Your task to perform on an android device: Open Youtube and go to "Your channel" Image 0: 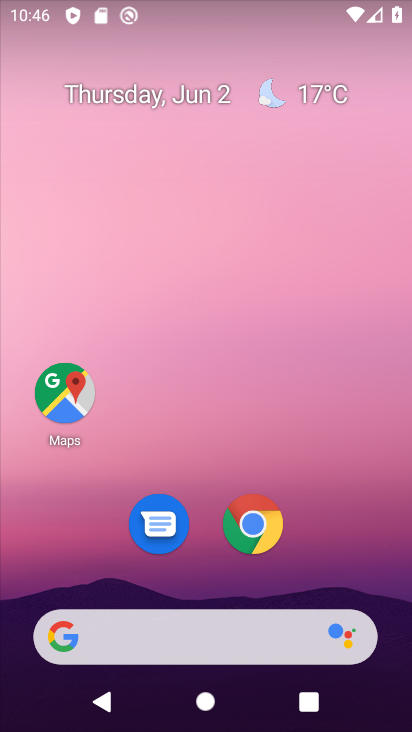
Step 0: drag from (227, 458) to (240, 6)
Your task to perform on an android device: Open Youtube and go to "Your channel" Image 1: 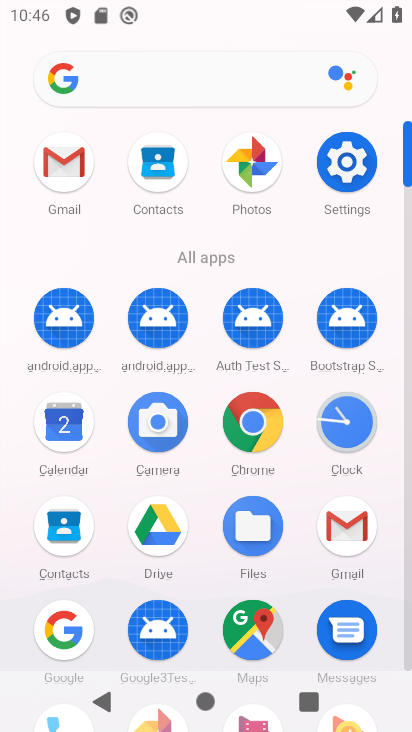
Step 1: drag from (211, 508) to (189, 57)
Your task to perform on an android device: Open Youtube and go to "Your channel" Image 2: 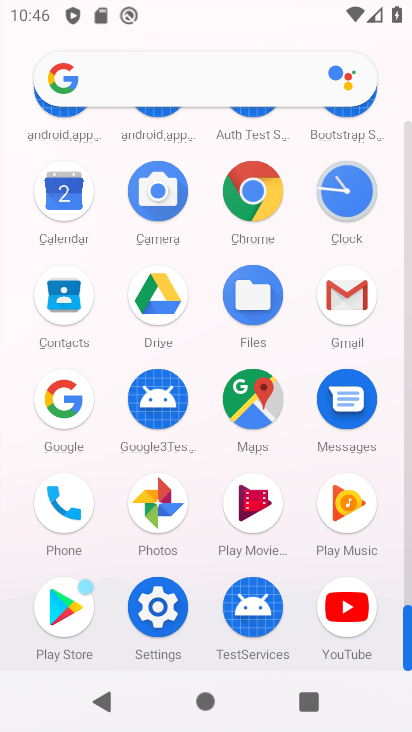
Step 2: click (357, 617)
Your task to perform on an android device: Open Youtube and go to "Your channel" Image 3: 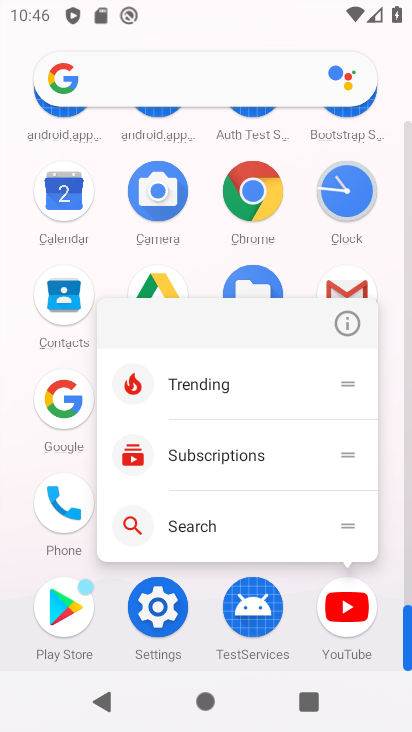
Step 3: click (357, 615)
Your task to perform on an android device: Open Youtube and go to "Your channel" Image 4: 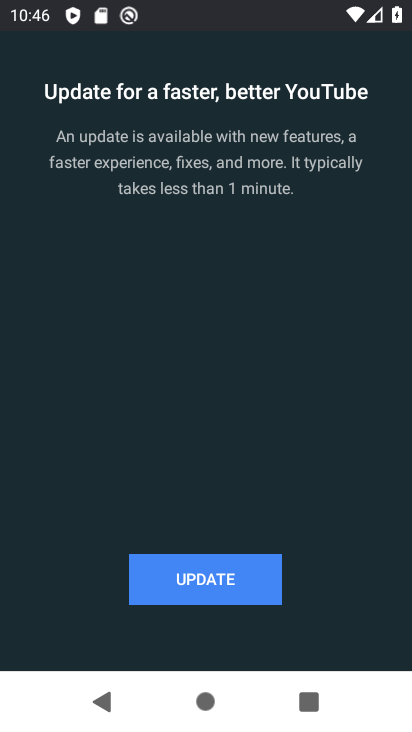
Step 4: click (250, 584)
Your task to perform on an android device: Open Youtube and go to "Your channel" Image 5: 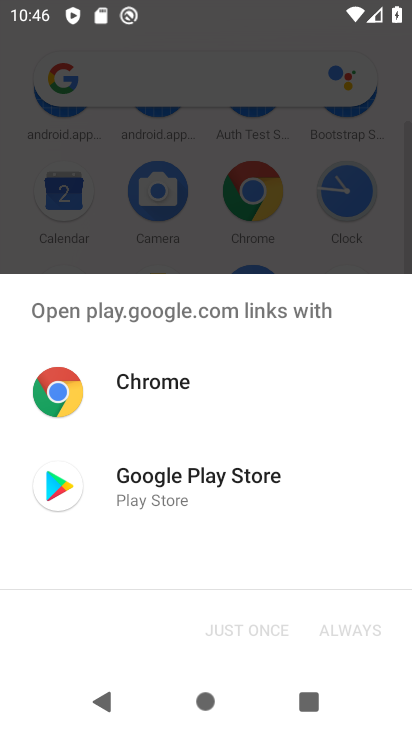
Step 5: click (164, 467)
Your task to perform on an android device: Open Youtube and go to "Your channel" Image 6: 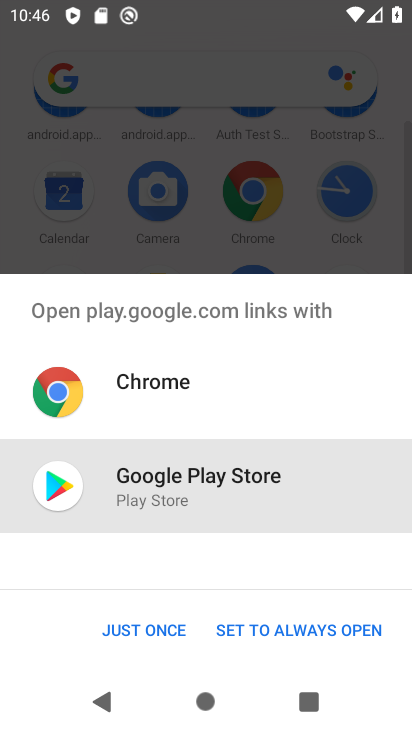
Step 6: click (162, 629)
Your task to perform on an android device: Open Youtube and go to "Your channel" Image 7: 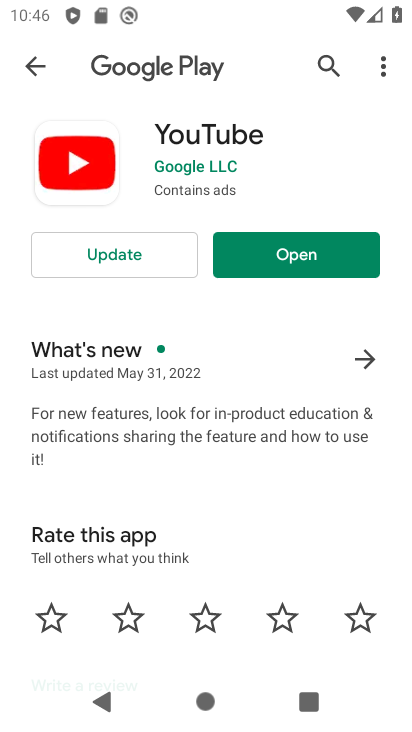
Step 7: click (148, 264)
Your task to perform on an android device: Open Youtube and go to "Your channel" Image 8: 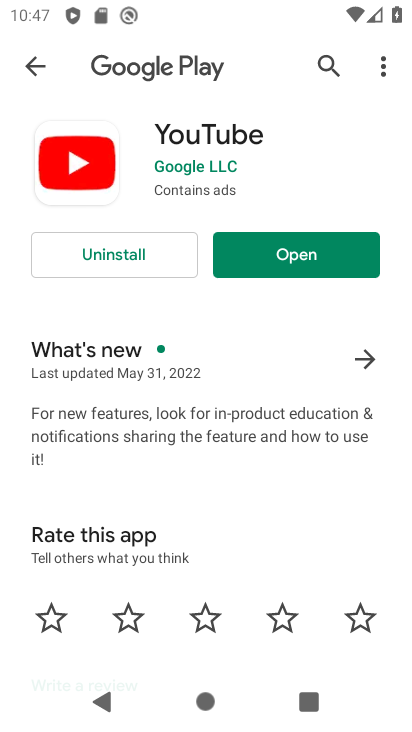
Step 8: click (352, 258)
Your task to perform on an android device: Open Youtube and go to "Your channel" Image 9: 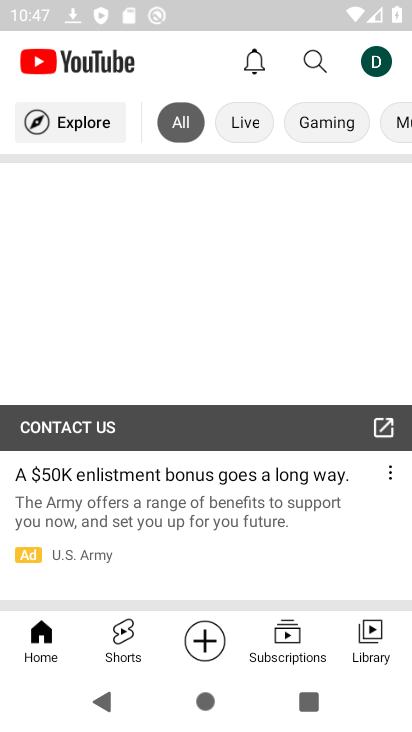
Step 9: click (375, 61)
Your task to perform on an android device: Open Youtube and go to "Your channel" Image 10: 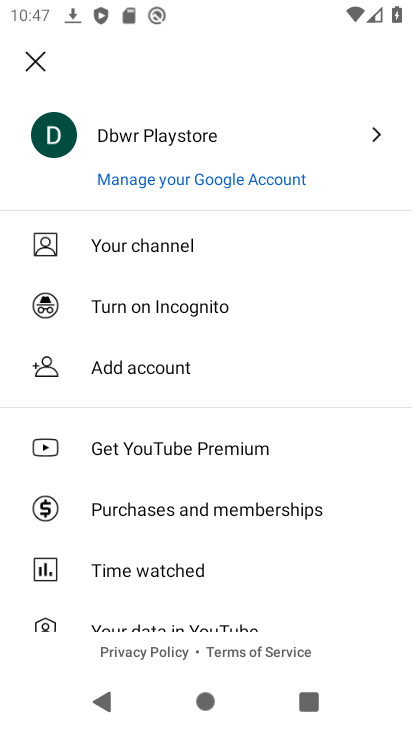
Step 10: click (212, 245)
Your task to perform on an android device: Open Youtube and go to "Your channel" Image 11: 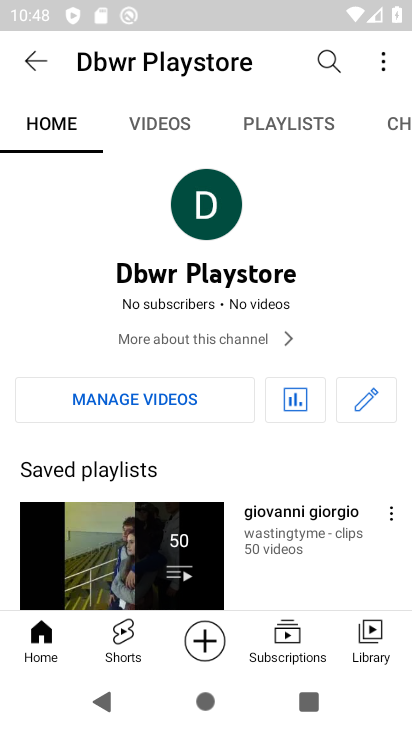
Step 11: task complete